Your task to perform on an android device: Toggle the flashlight Image 0: 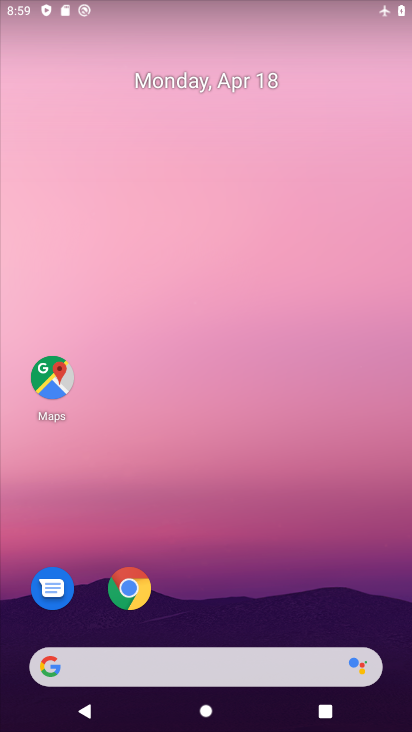
Step 0: drag from (254, 566) to (260, 195)
Your task to perform on an android device: Toggle the flashlight Image 1: 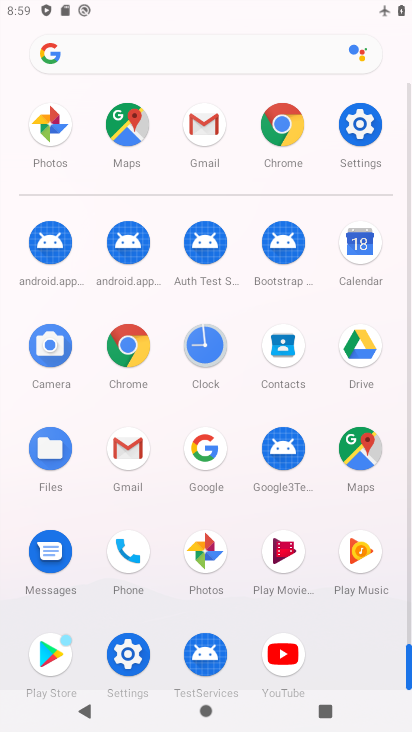
Step 1: drag from (329, 649) to (353, 170)
Your task to perform on an android device: Toggle the flashlight Image 2: 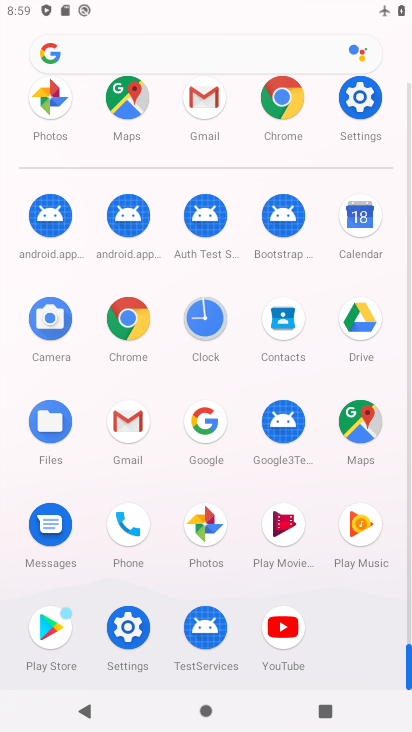
Step 2: click (129, 632)
Your task to perform on an android device: Toggle the flashlight Image 3: 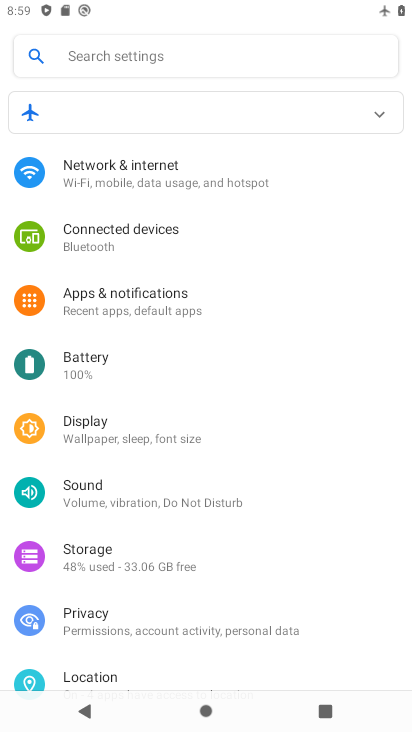
Step 3: task complete